Your task to perform on an android device: Set the phone to "Do not disturb". Image 0: 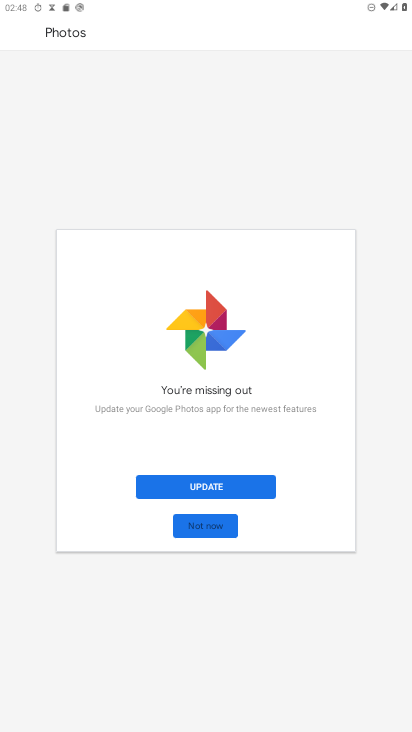
Step 0: press home button
Your task to perform on an android device: Set the phone to "Do not disturb". Image 1: 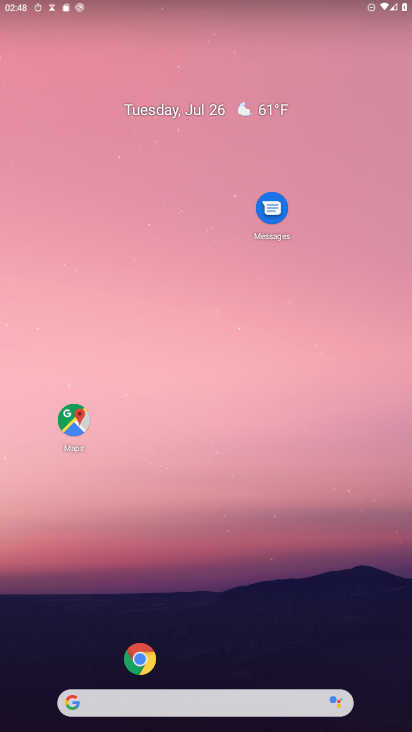
Step 1: drag from (44, 691) to (283, 149)
Your task to perform on an android device: Set the phone to "Do not disturb". Image 2: 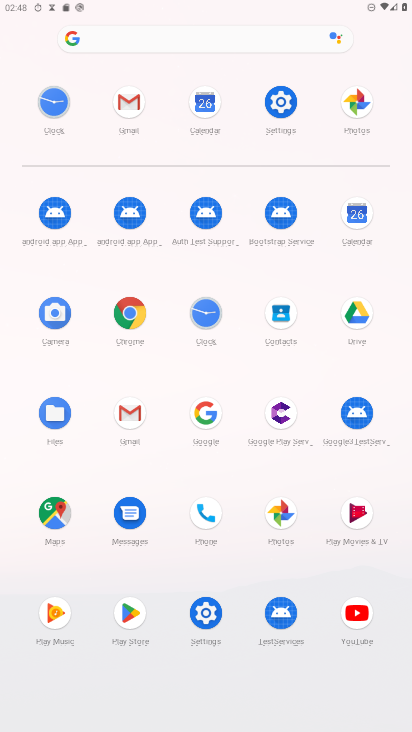
Step 2: click (203, 620)
Your task to perform on an android device: Set the phone to "Do not disturb". Image 3: 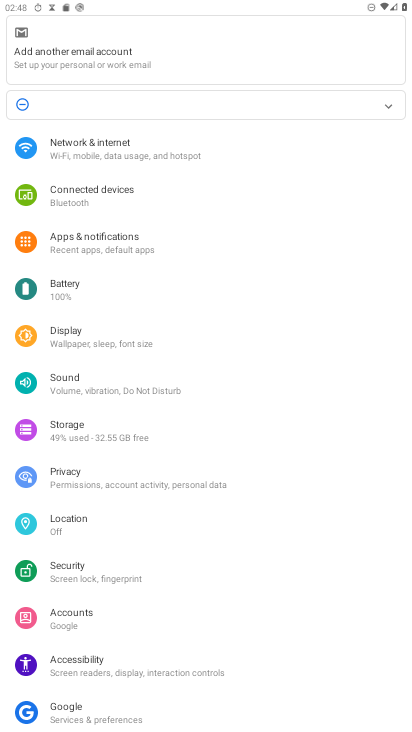
Step 3: click (134, 390)
Your task to perform on an android device: Set the phone to "Do not disturb". Image 4: 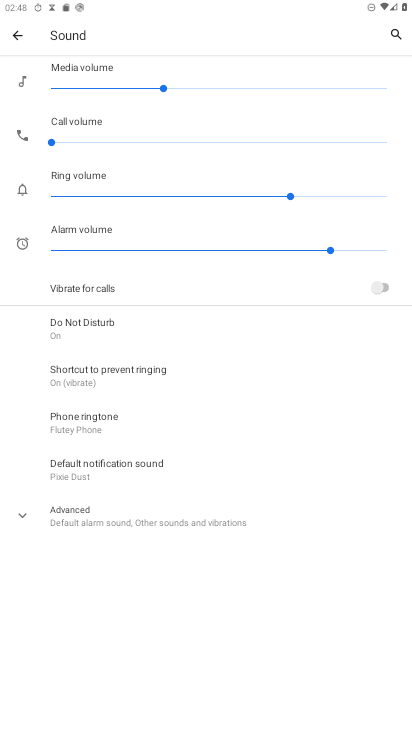
Step 4: task complete